Your task to perform on an android device: Go to Android settings Image 0: 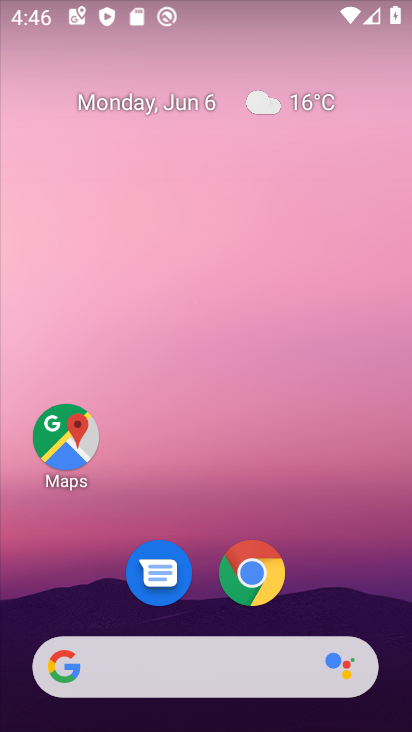
Step 0: drag from (348, 555) to (310, 60)
Your task to perform on an android device: Go to Android settings Image 1: 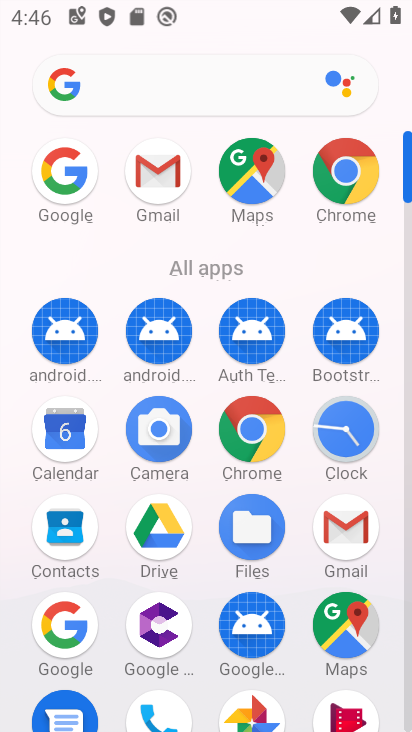
Step 1: drag from (123, 532) to (121, 238)
Your task to perform on an android device: Go to Android settings Image 2: 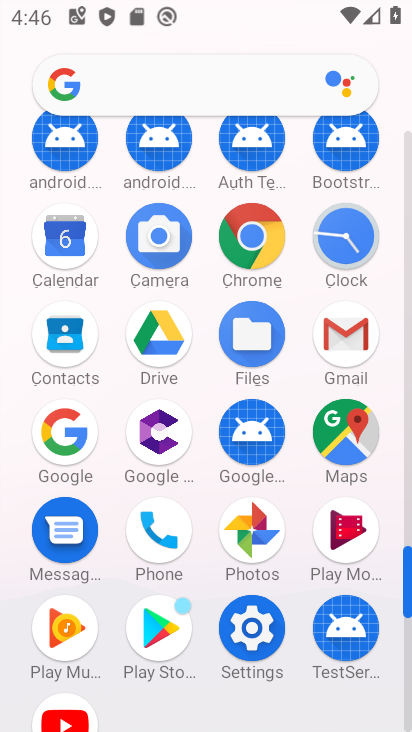
Step 2: click (255, 629)
Your task to perform on an android device: Go to Android settings Image 3: 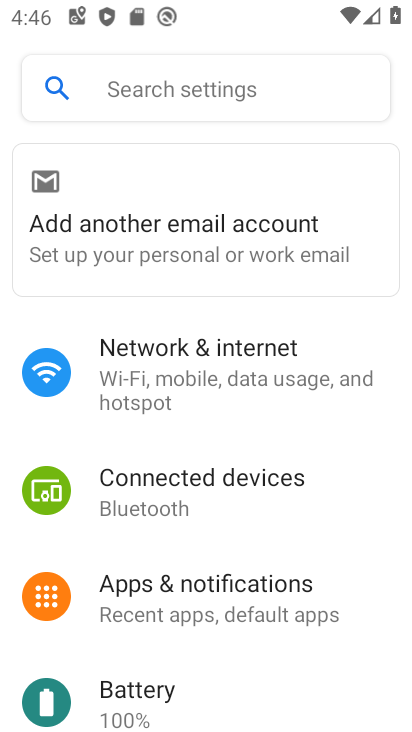
Step 3: task complete